Your task to perform on an android device: Go to Amazon Image 0: 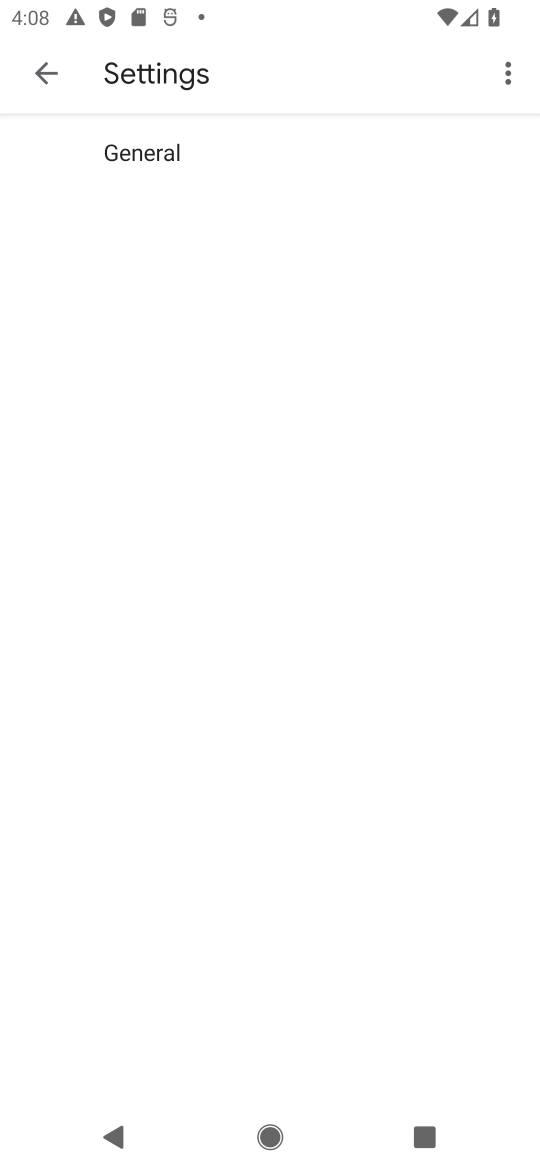
Step 0: press home button
Your task to perform on an android device: Go to Amazon Image 1: 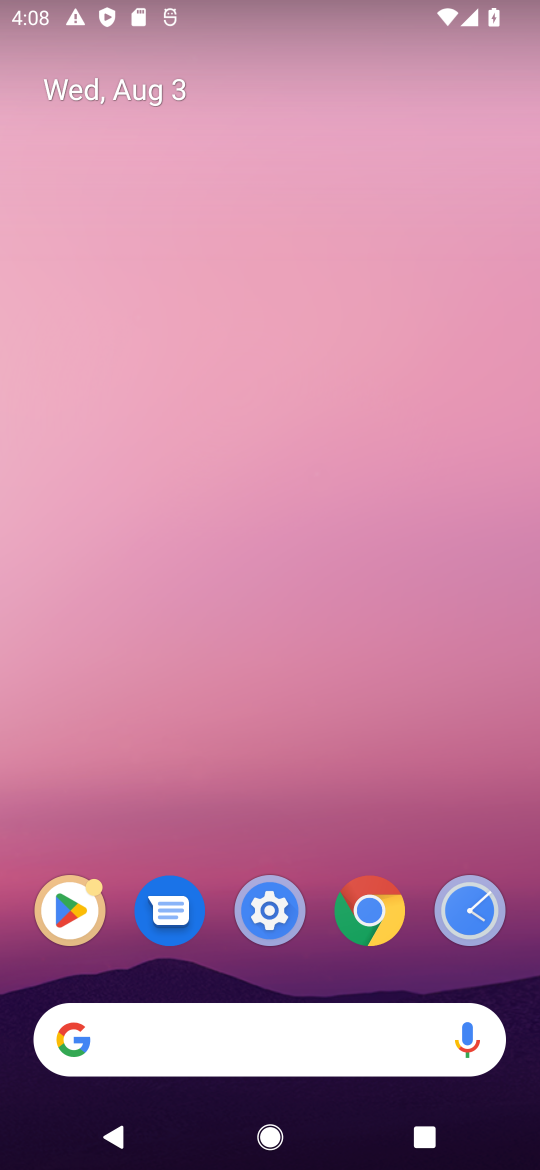
Step 1: drag from (311, 844) to (339, 0)
Your task to perform on an android device: Go to Amazon Image 2: 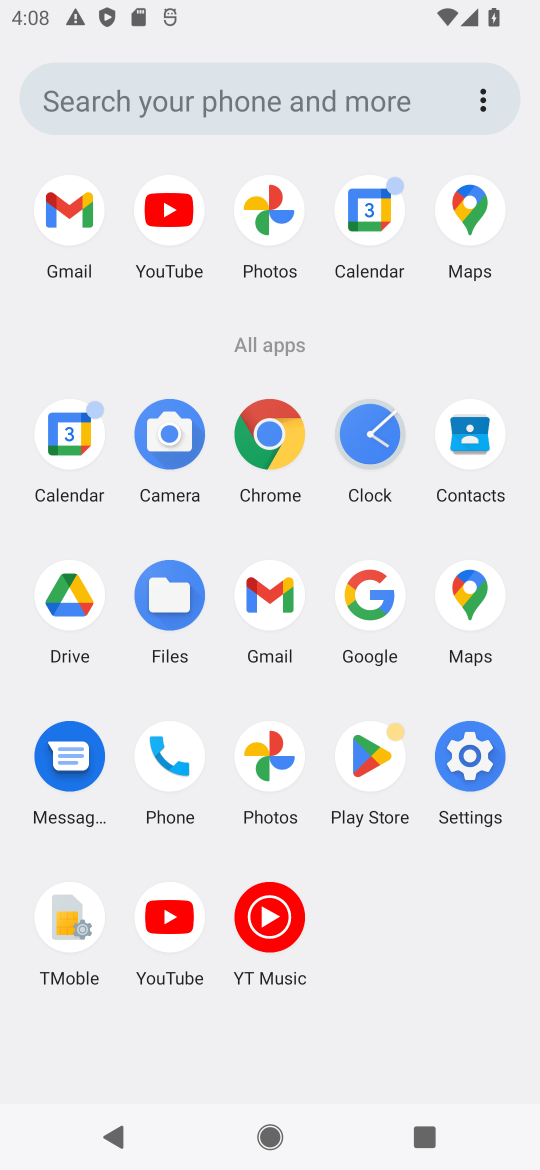
Step 2: click (265, 420)
Your task to perform on an android device: Go to Amazon Image 3: 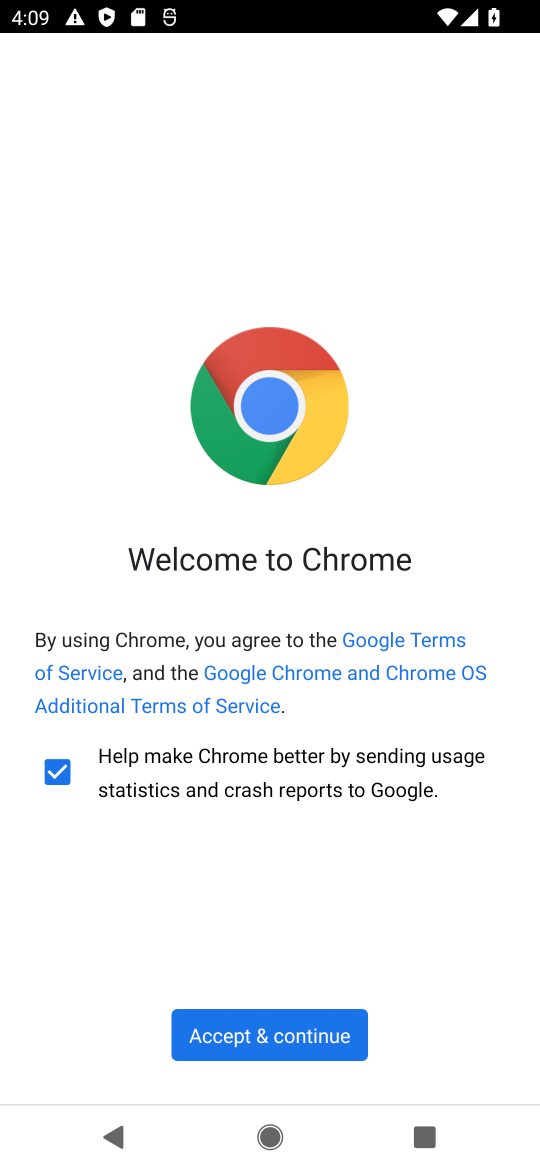
Step 3: click (266, 1031)
Your task to perform on an android device: Go to Amazon Image 4: 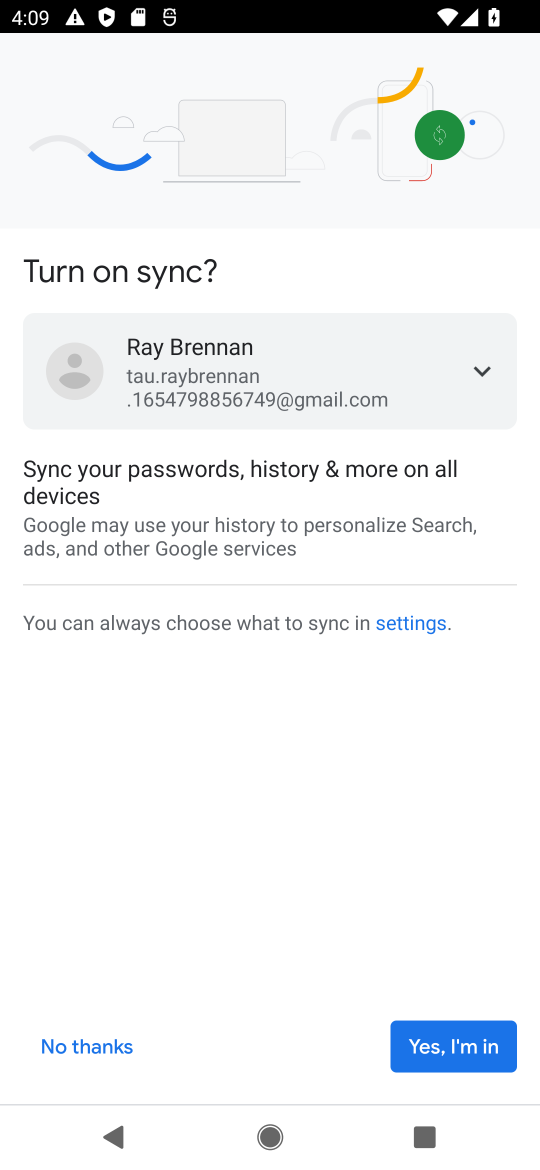
Step 4: click (455, 1040)
Your task to perform on an android device: Go to Amazon Image 5: 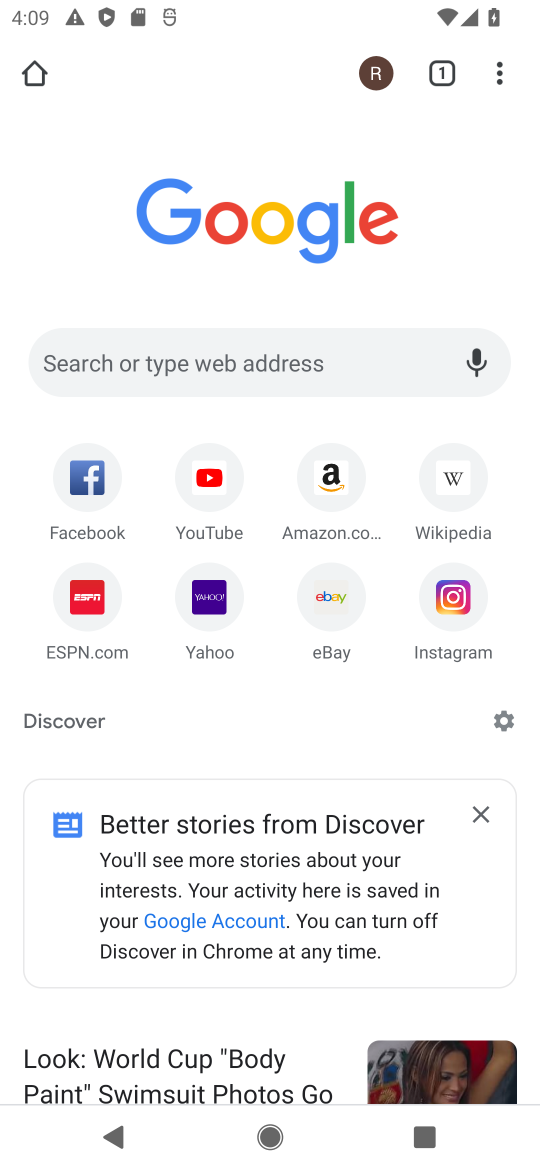
Step 5: click (329, 473)
Your task to perform on an android device: Go to Amazon Image 6: 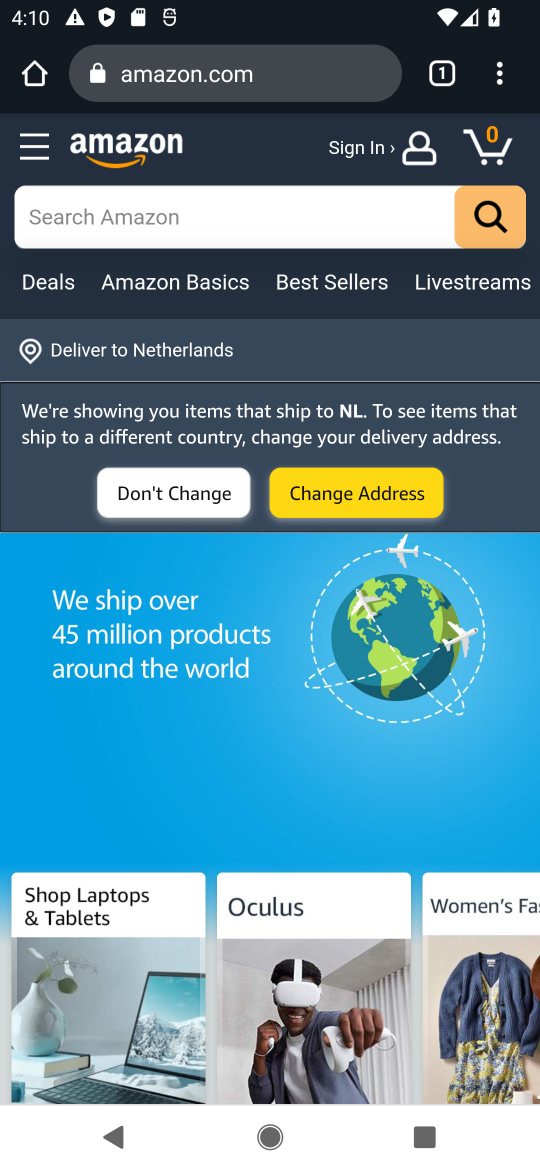
Step 6: click (172, 486)
Your task to perform on an android device: Go to Amazon Image 7: 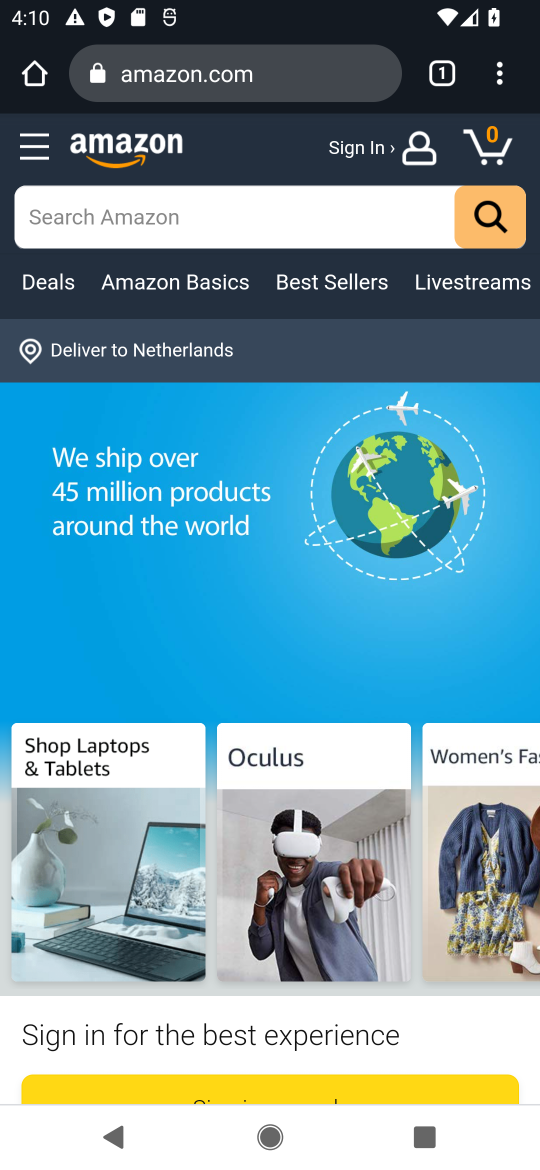
Step 7: task complete